Your task to perform on an android device: Go to notification settings Image 0: 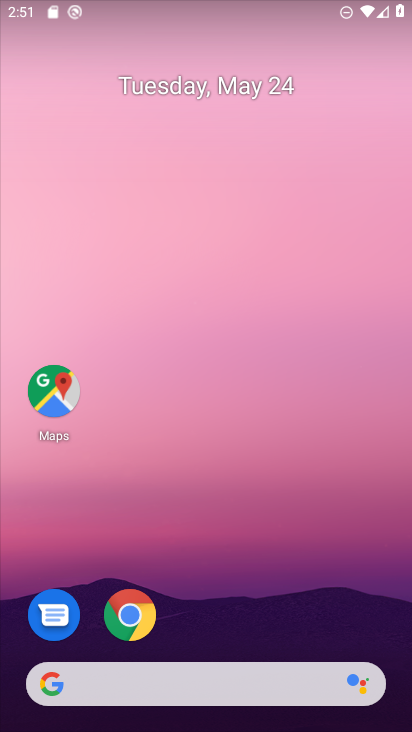
Step 0: drag from (227, 606) to (280, 63)
Your task to perform on an android device: Go to notification settings Image 1: 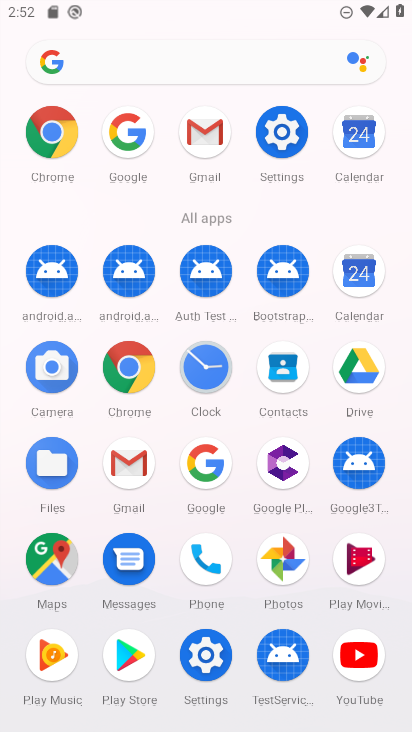
Step 1: click (285, 142)
Your task to perform on an android device: Go to notification settings Image 2: 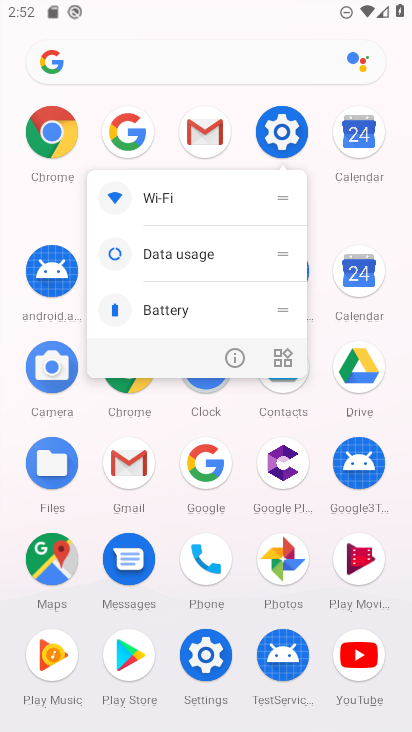
Step 2: click (285, 142)
Your task to perform on an android device: Go to notification settings Image 3: 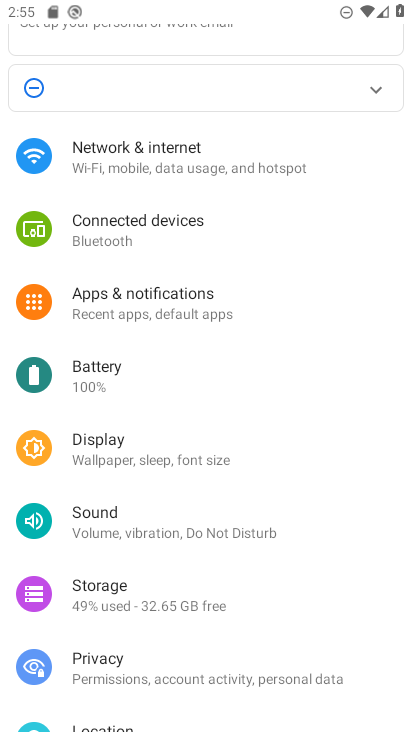
Step 3: click (226, 299)
Your task to perform on an android device: Go to notification settings Image 4: 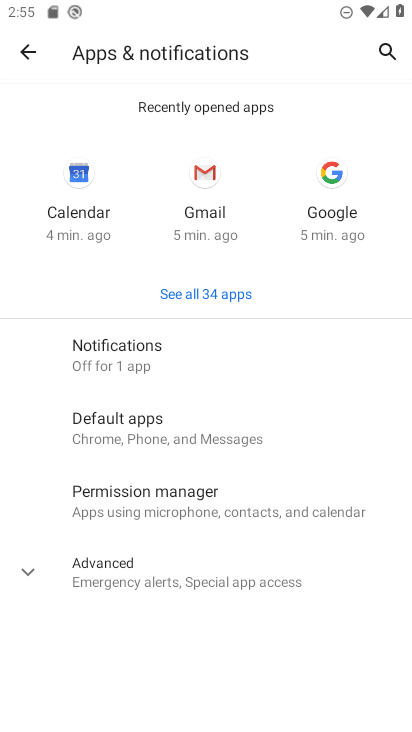
Step 4: click (188, 360)
Your task to perform on an android device: Go to notification settings Image 5: 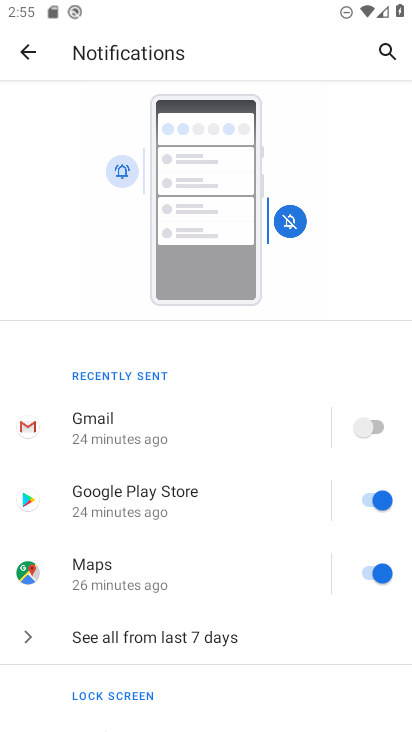
Step 5: drag from (211, 572) to (290, 310)
Your task to perform on an android device: Go to notification settings Image 6: 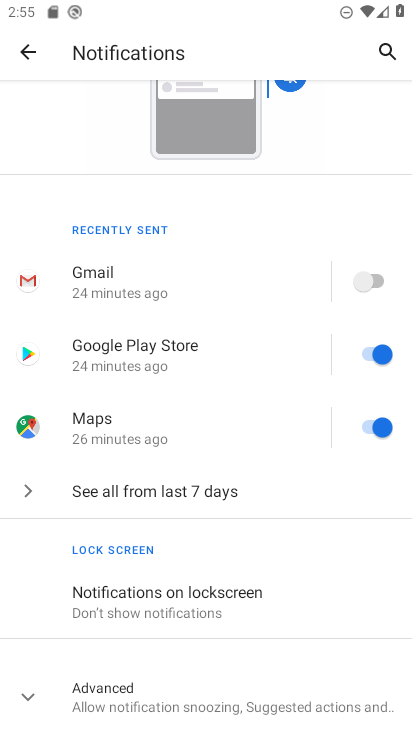
Step 6: click (198, 604)
Your task to perform on an android device: Go to notification settings Image 7: 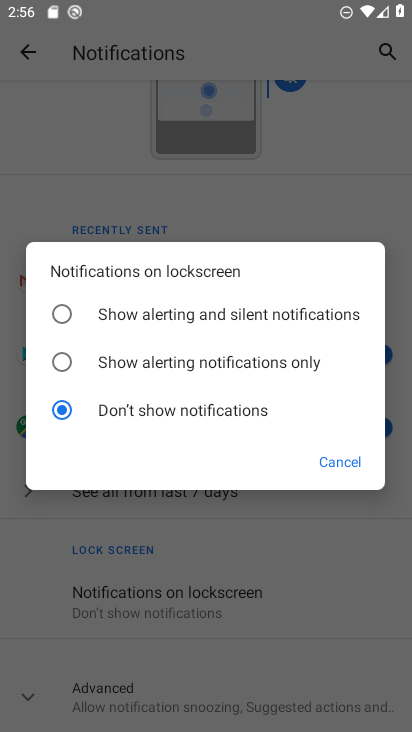
Step 7: click (335, 177)
Your task to perform on an android device: Go to notification settings Image 8: 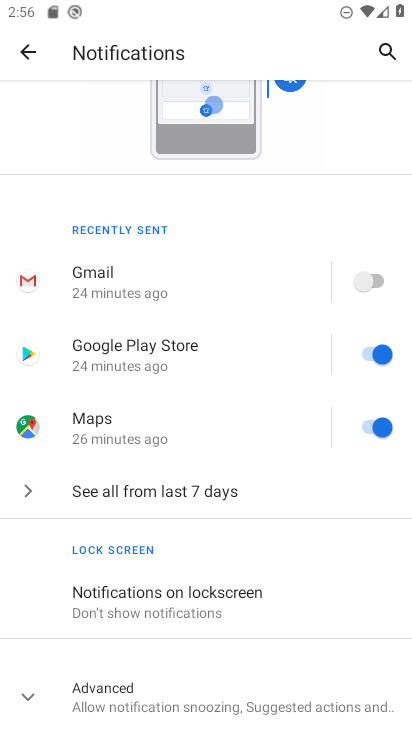
Step 8: task complete